Your task to perform on an android device: What time is it in Sydney? Image 0: 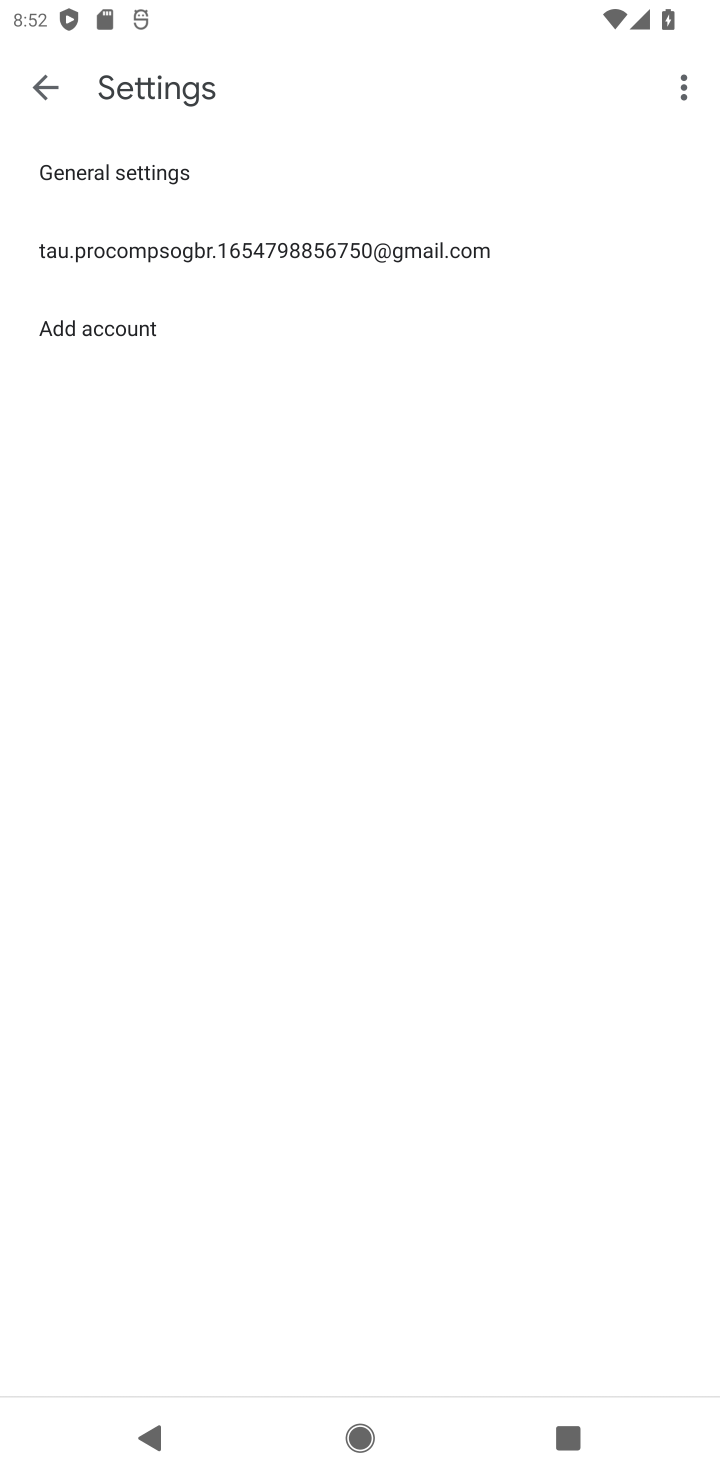
Step 0: press home button
Your task to perform on an android device: What time is it in Sydney? Image 1: 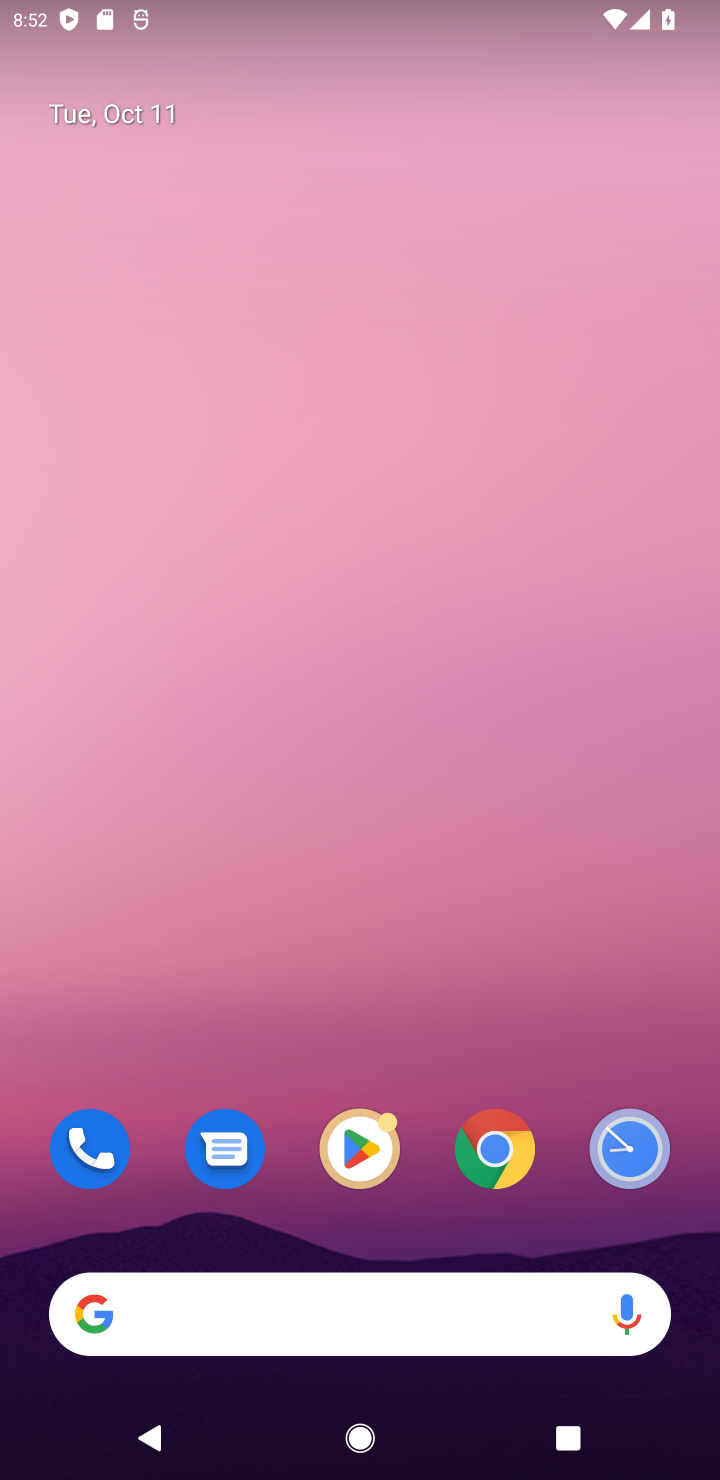
Step 1: drag from (429, 1212) to (593, 0)
Your task to perform on an android device: What time is it in Sydney? Image 2: 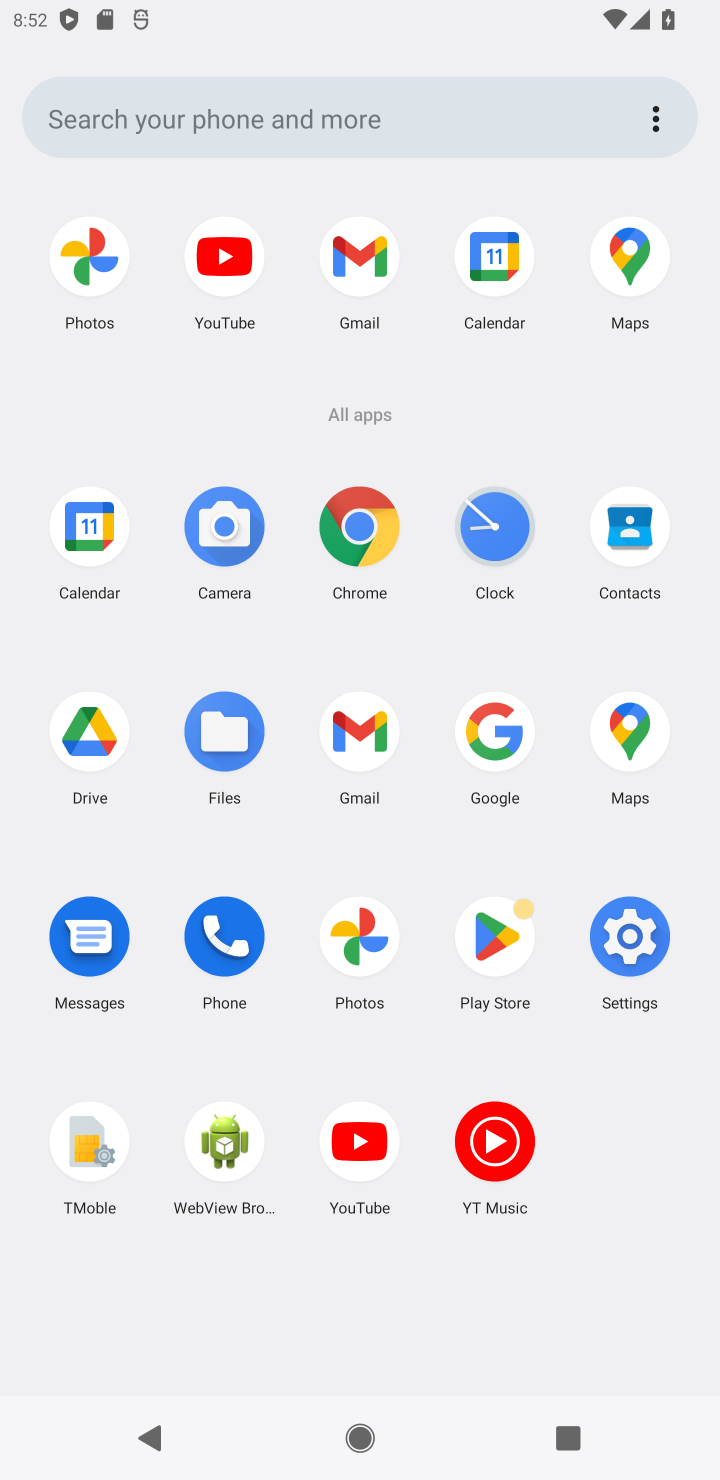
Step 2: click (368, 552)
Your task to perform on an android device: What time is it in Sydney? Image 3: 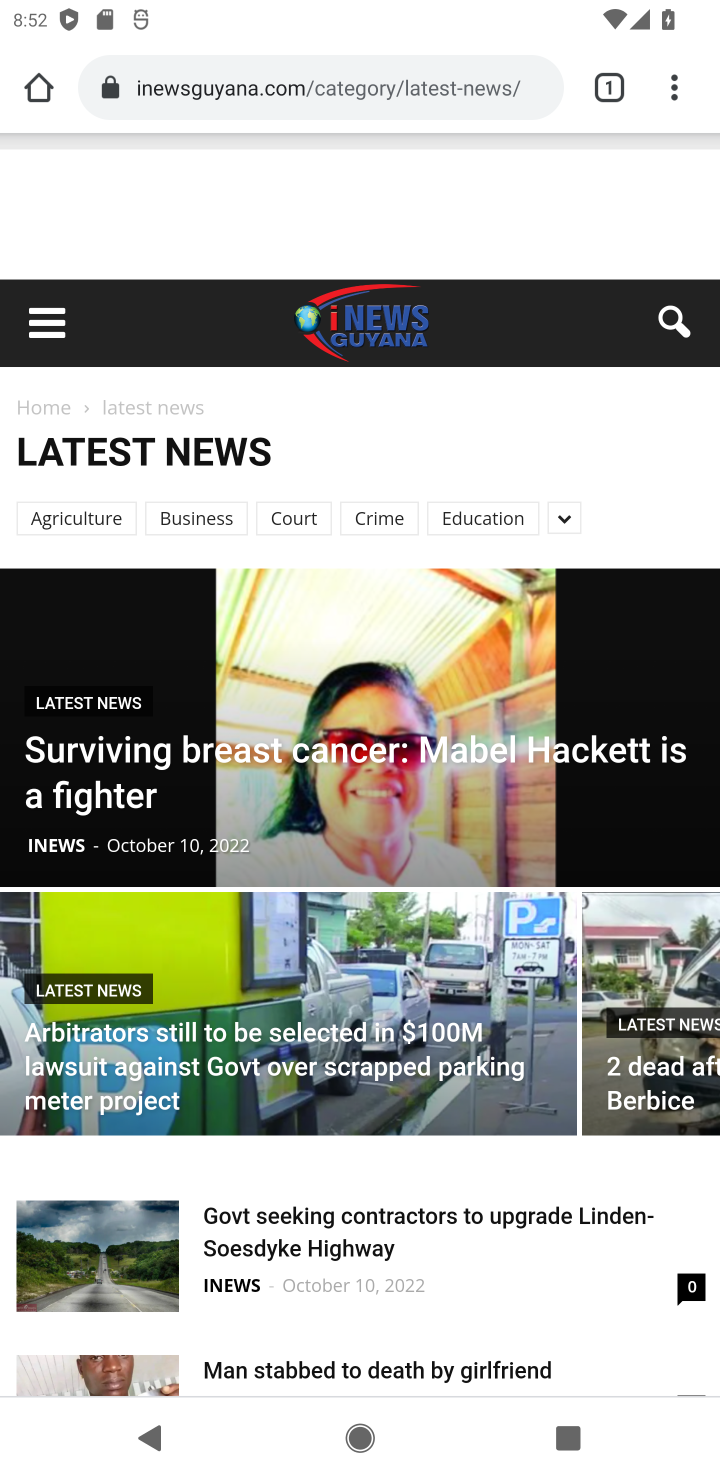
Step 3: click (370, 99)
Your task to perform on an android device: What time is it in Sydney? Image 4: 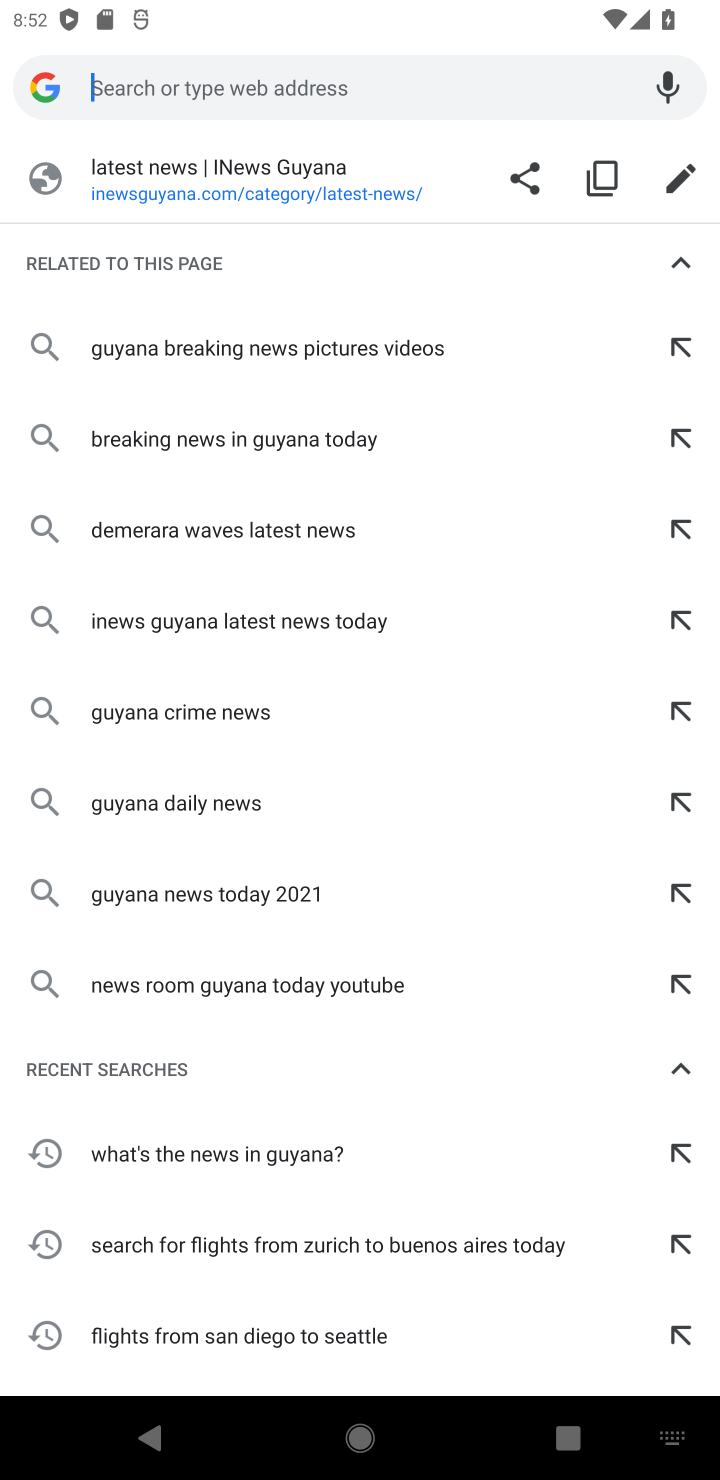
Step 4: type "What time is it in Sydney?"
Your task to perform on an android device: What time is it in Sydney? Image 5: 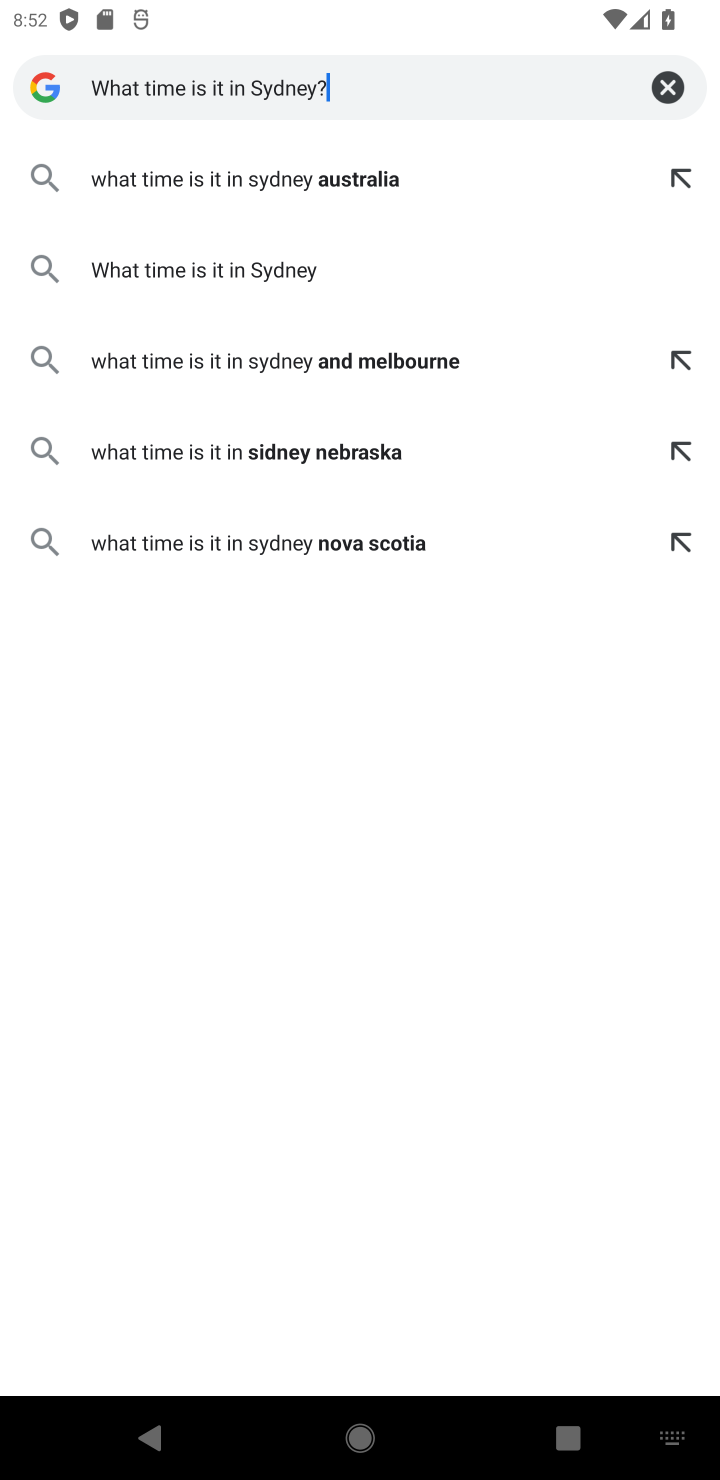
Step 5: press enter
Your task to perform on an android device: What time is it in Sydney? Image 6: 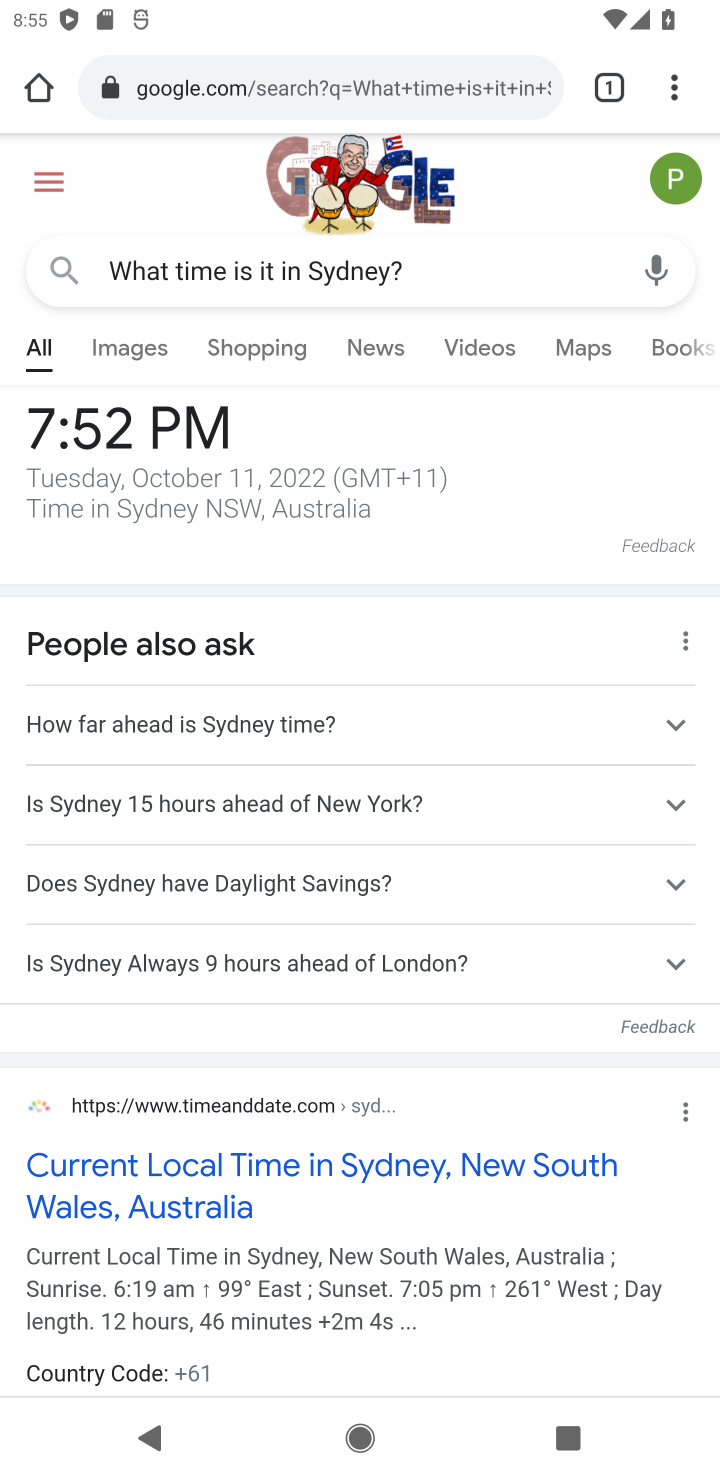
Step 6: task complete